Your task to perform on an android device: turn on javascript in the chrome app Image 0: 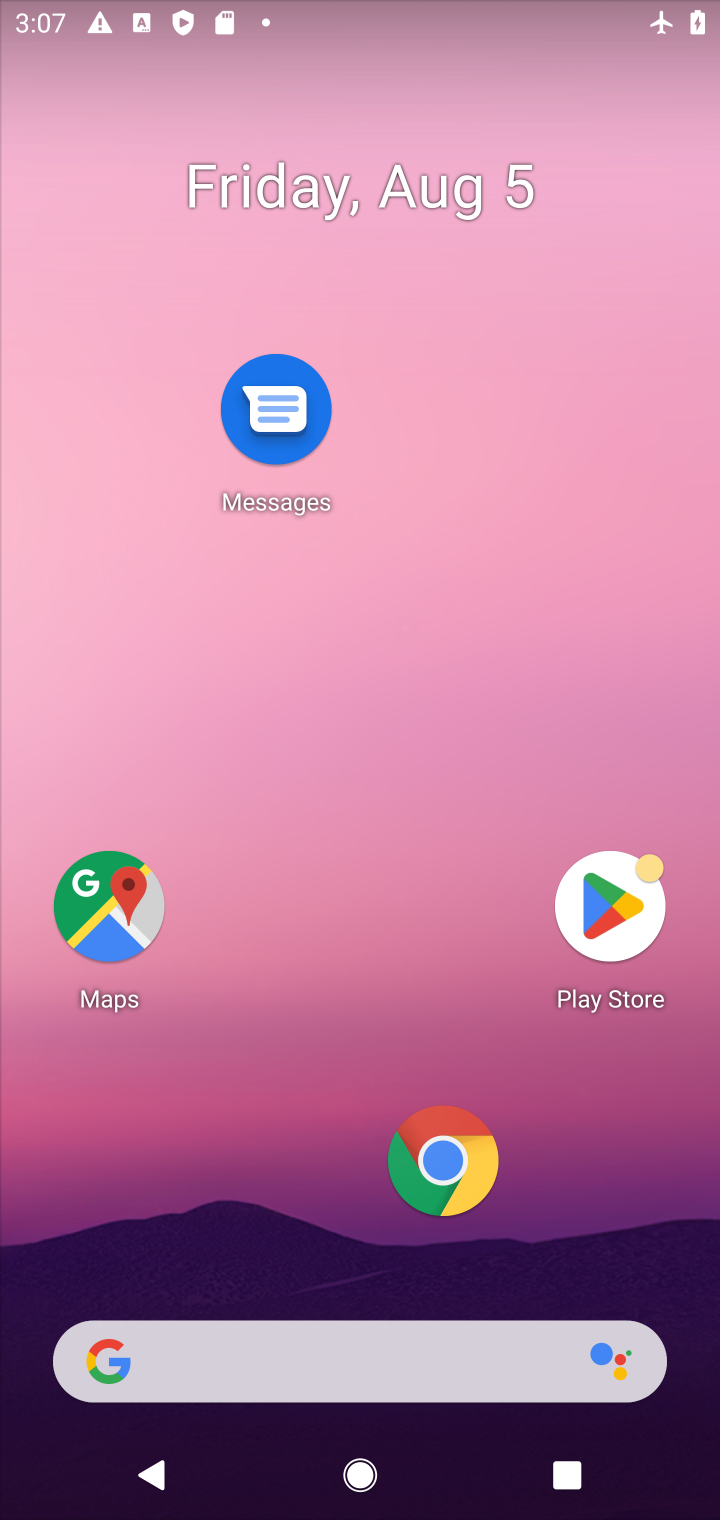
Step 0: click (429, 1147)
Your task to perform on an android device: turn on javascript in the chrome app Image 1: 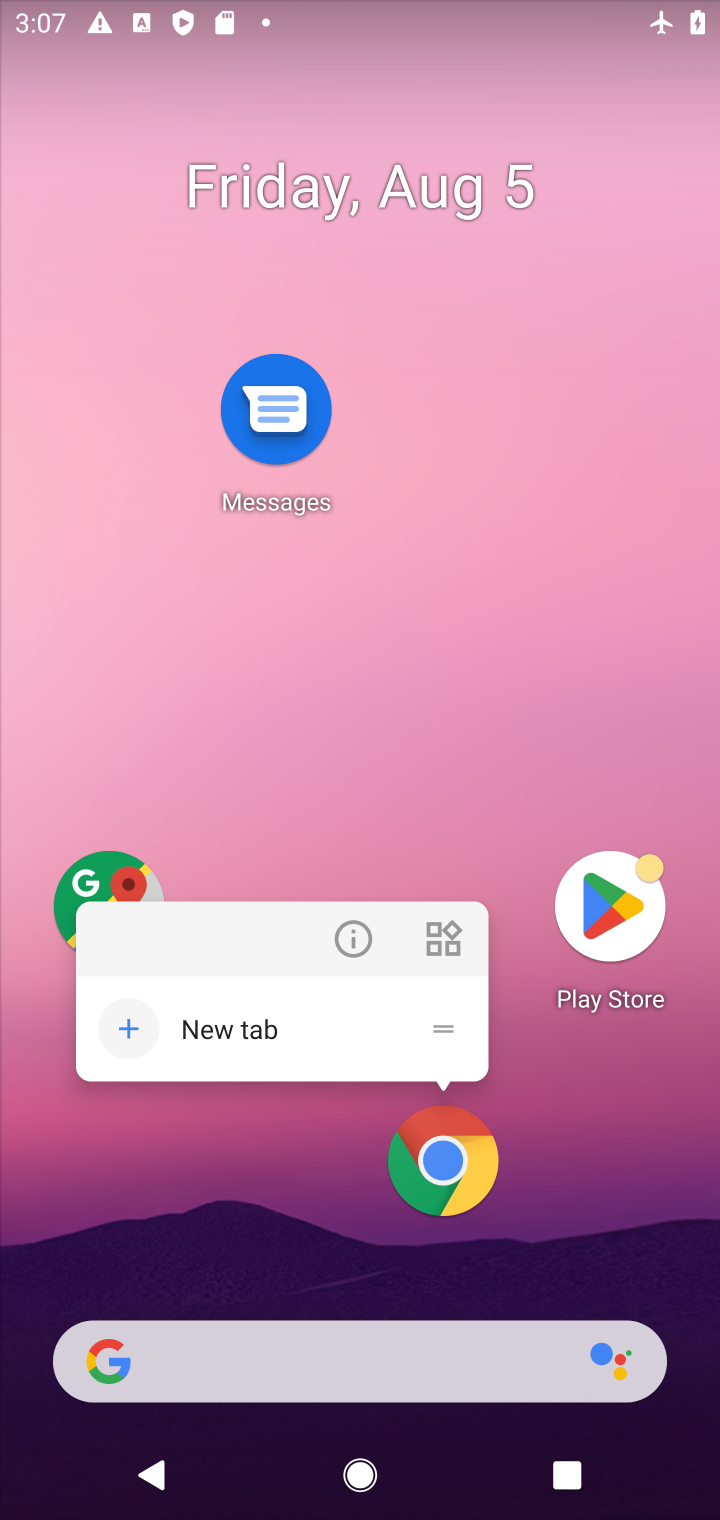
Step 1: click (429, 1147)
Your task to perform on an android device: turn on javascript in the chrome app Image 2: 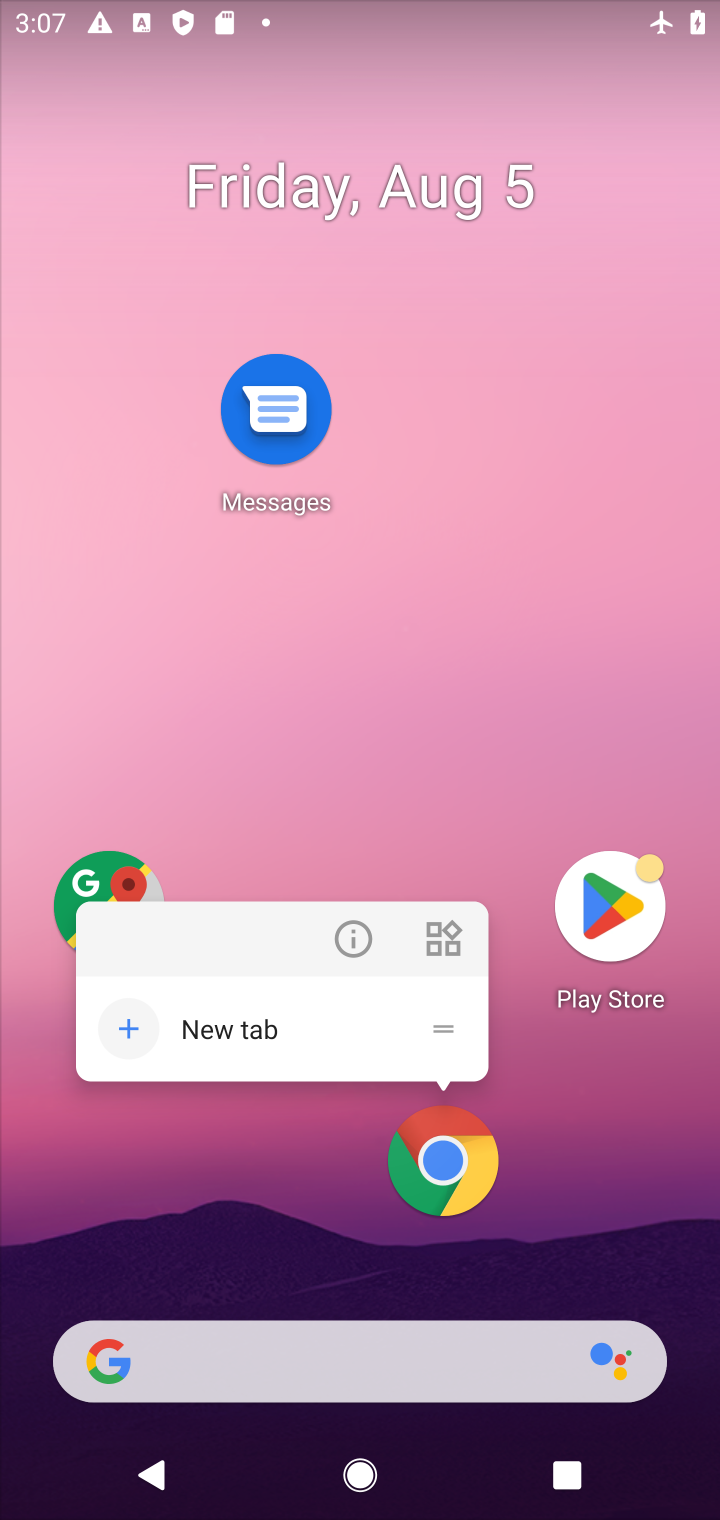
Step 2: click (429, 1147)
Your task to perform on an android device: turn on javascript in the chrome app Image 3: 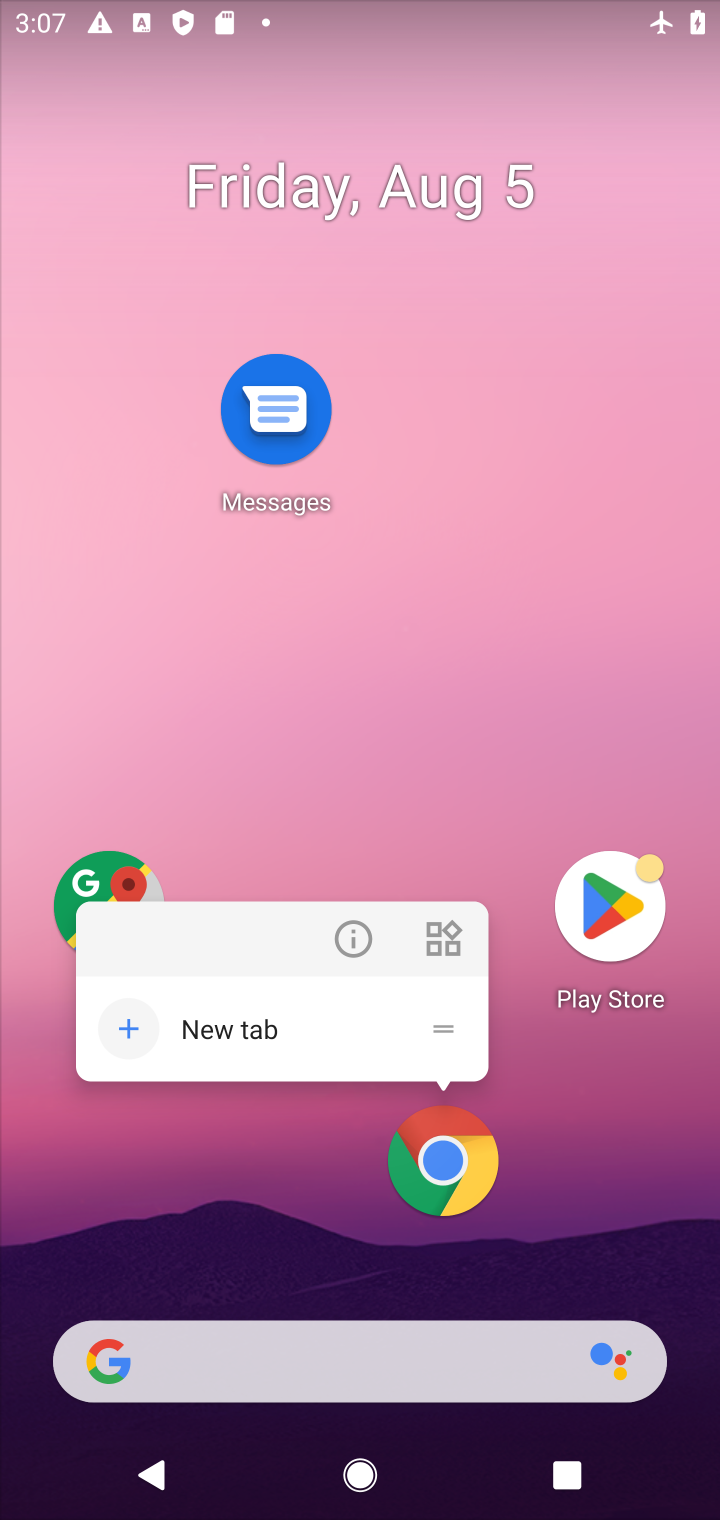
Step 3: click (441, 1195)
Your task to perform on an android device: turn on javascript in the chrome app Image 4: 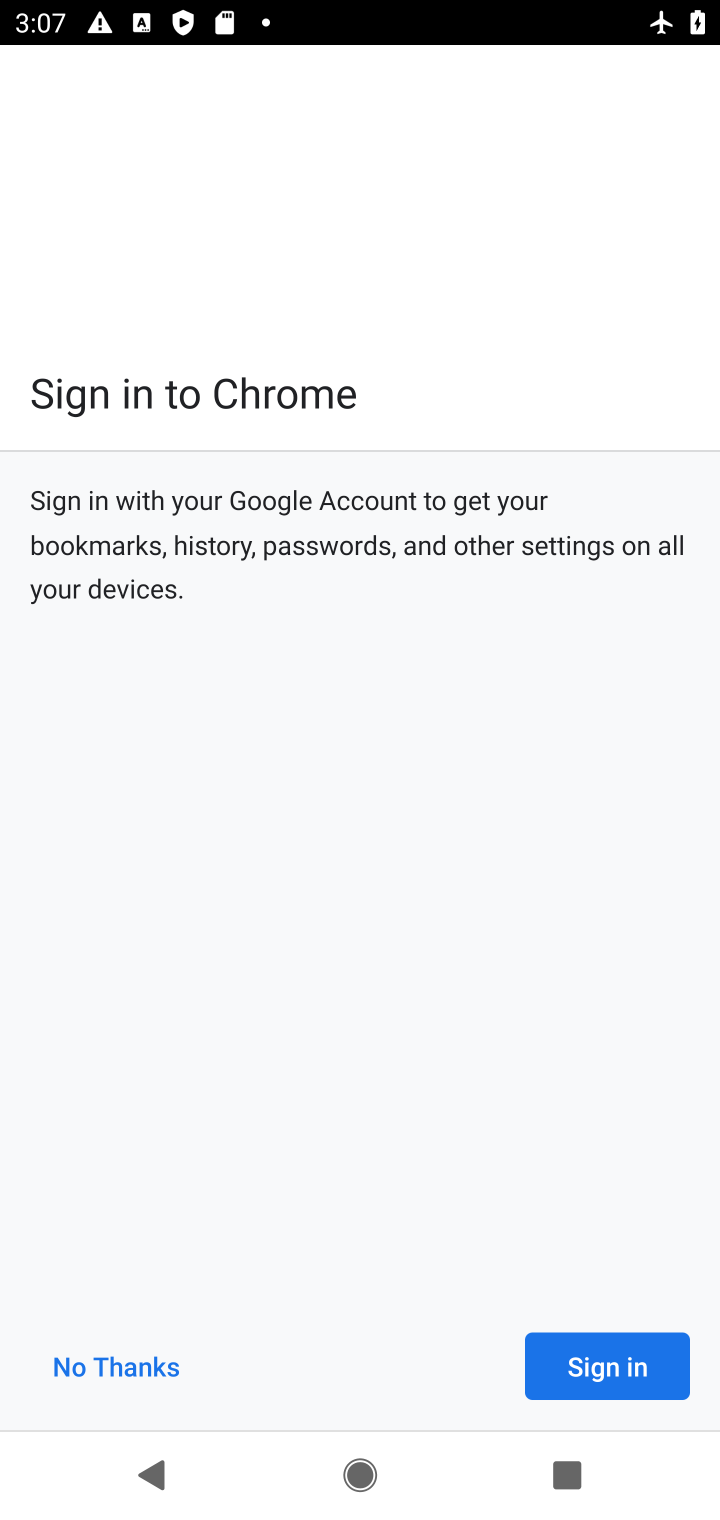
Step 4: click (599, 1342)
Your task to perform on an android device: turn on javascript in the chrome app Image 5: 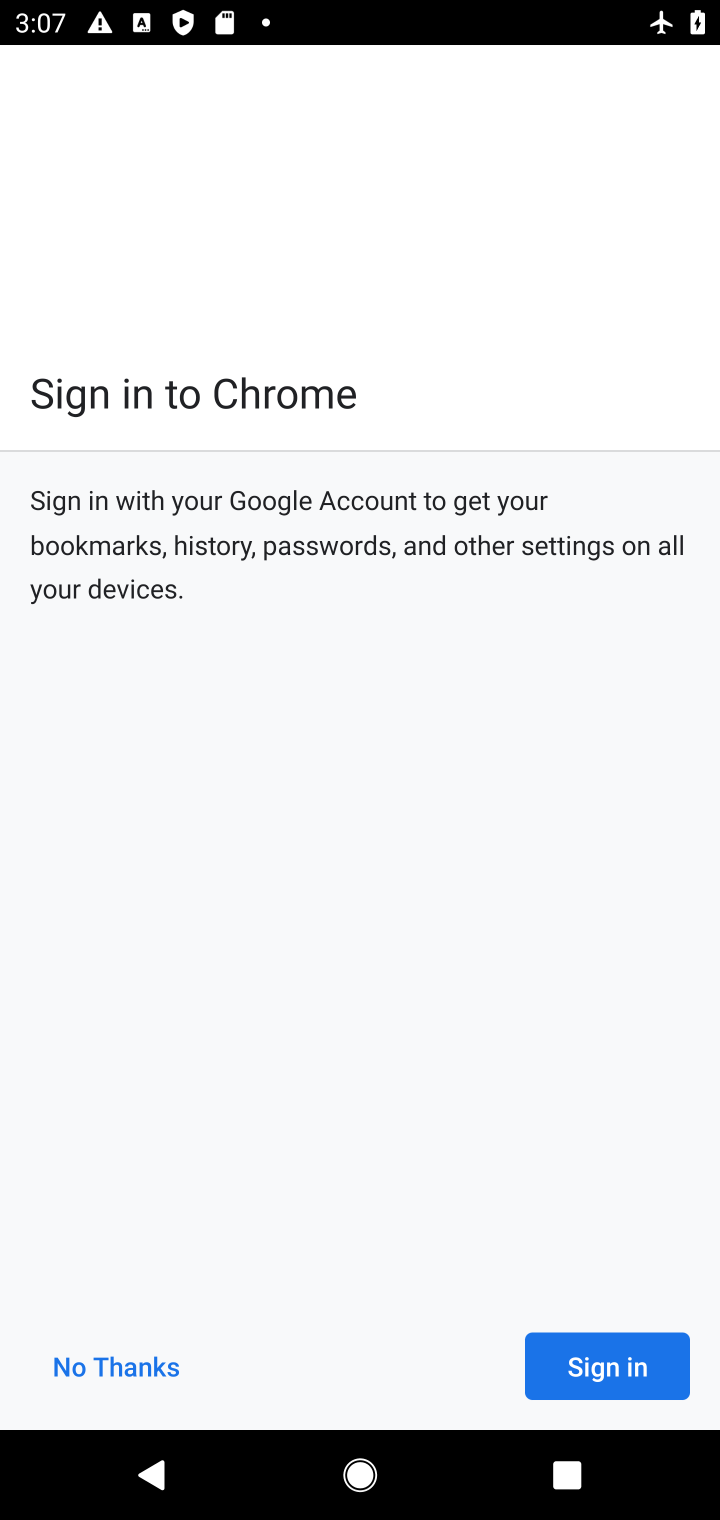
Step 5: click (599, 1342)
Your task to perform on an android device: turn on javascript in the chrome app Image 6: 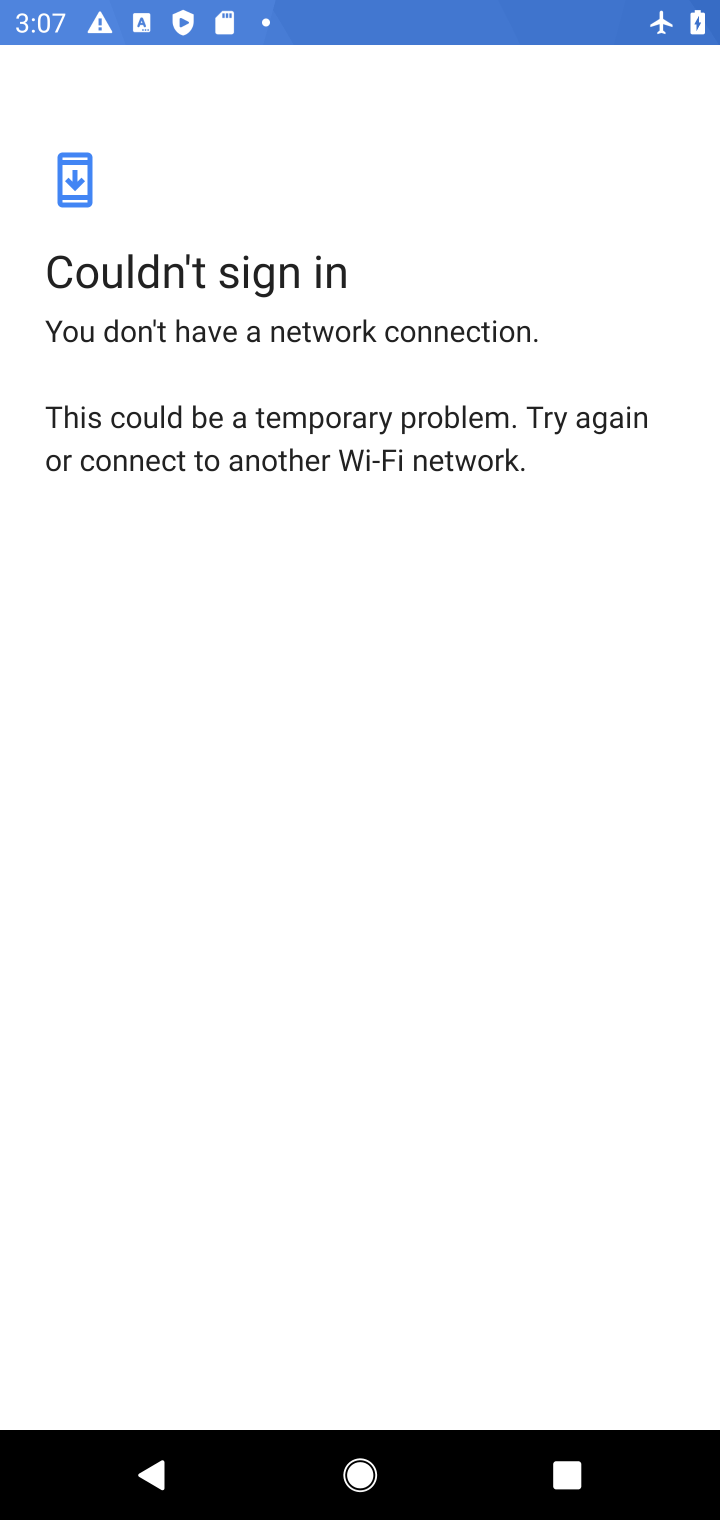
Step 6: task complete